Your task to perform on an android device: turn on the 12-hour format for clock Image 0: 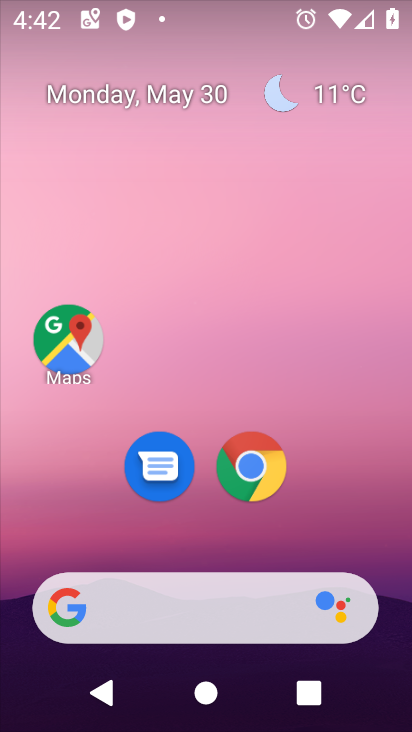
Step 0: drag from (341, 485) to (163, 8)
Your task to perform on an android device: turn on the 12-hour format for clock Image 1: 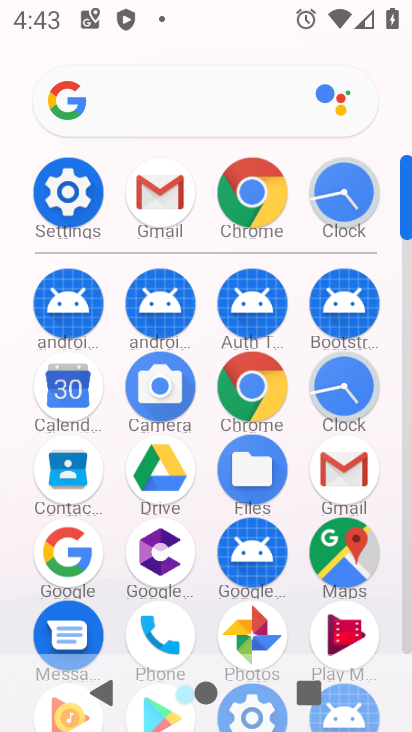
Step 1: click (356, 397)
Your task to perform on an android device: turn on the 12-hour format for clock Image 2: 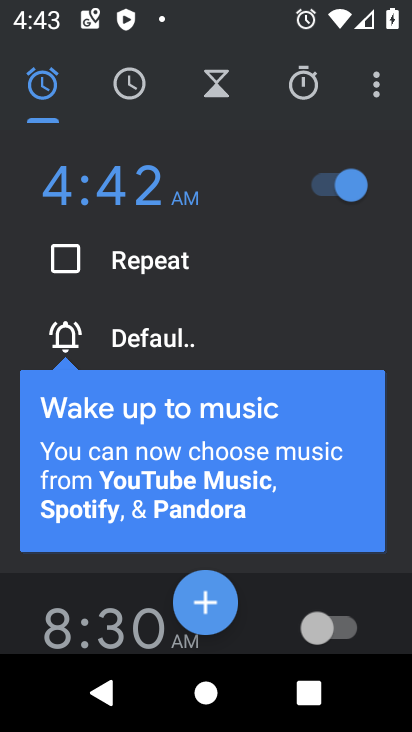
Step 2: click (374, 84)
Your task to perform on an android device: turn on the 12-hour format for clock Image 3: 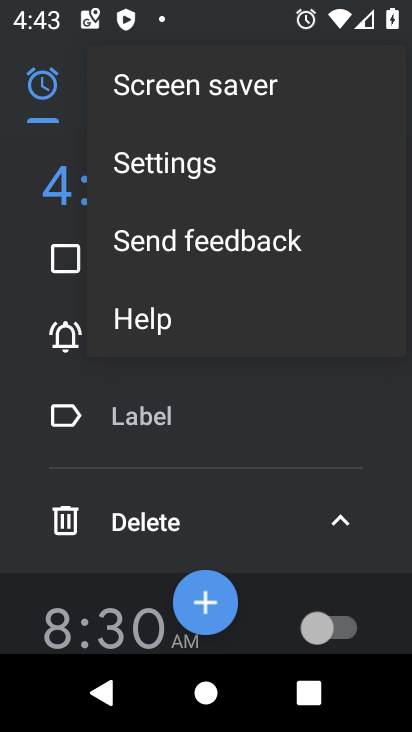
Step 3: click (169, 147)
Your task to perform on an android device: turn on the 12-hour format for clock Image 4: 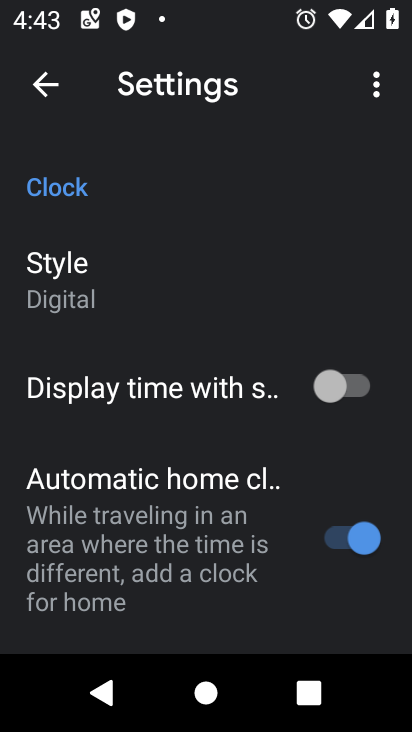
Step 4: drag from (230, 530) to (237, 91)
Your task to perform on an android device: turn on the 12-hour format for clock Image 5: 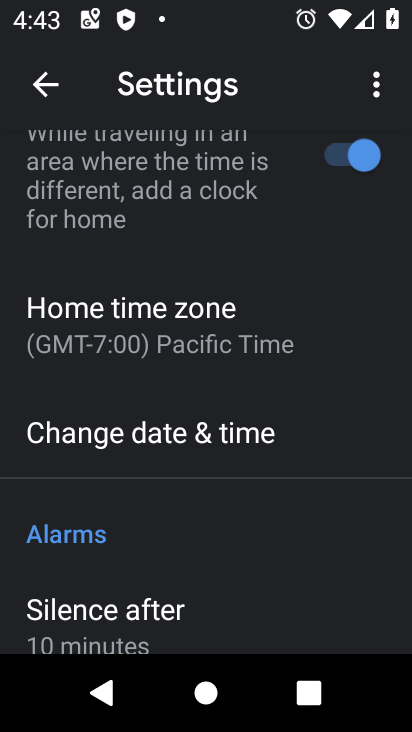
Step 5: click (130, 445)
Your task to perform on an android device: turn on the 12-hour format for clock Image 6: 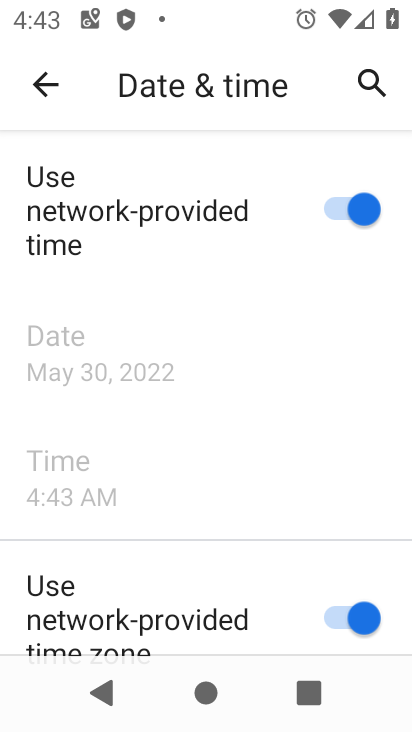
Step 6: task complete